Your task to perform on an android device: Go to Maps Image 0: 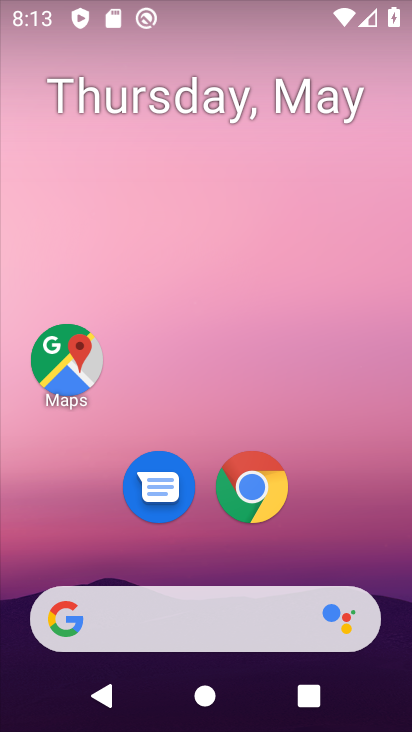
Step 0: drag from (355, 527) to (343, 421)
Your task to perform on an android device: Go to Maps Image 1: 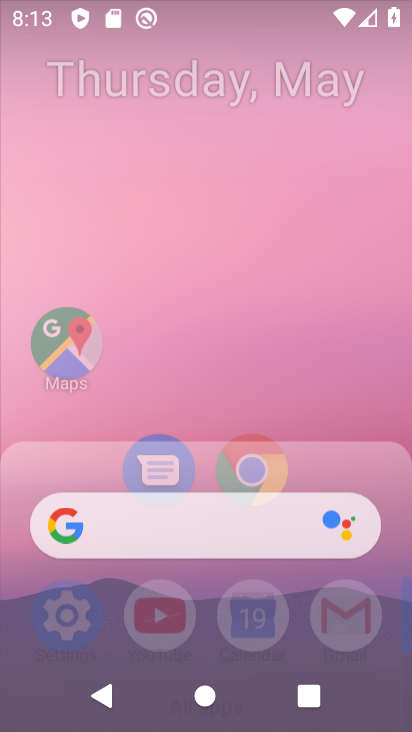
Step 1: drag from (343, 463) to (342, 514)
Your task to perform on an android device: Go to Maps Image 2: 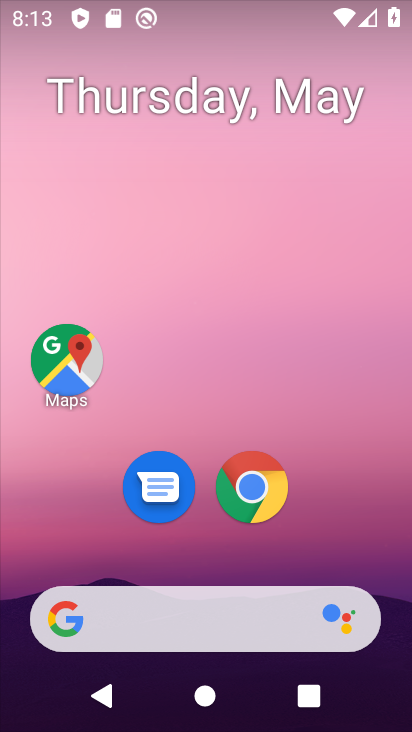
Step 2: click (74, 367)
Your task to perform on an android device: Go to Maps Image 3: 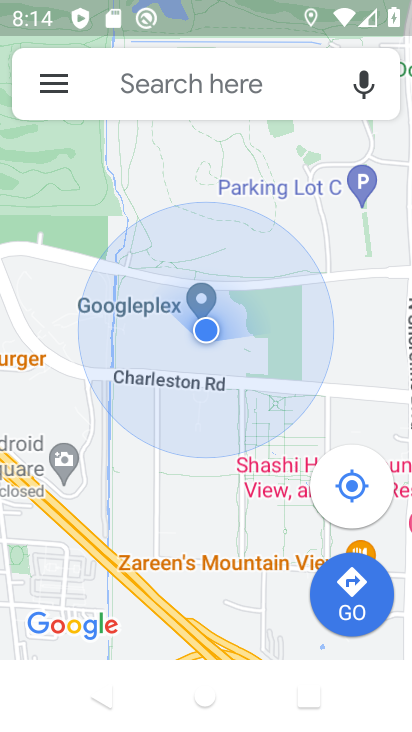
Step 3: task complete